Your task to perform on an android device: Turn off the flashlight Image 0: 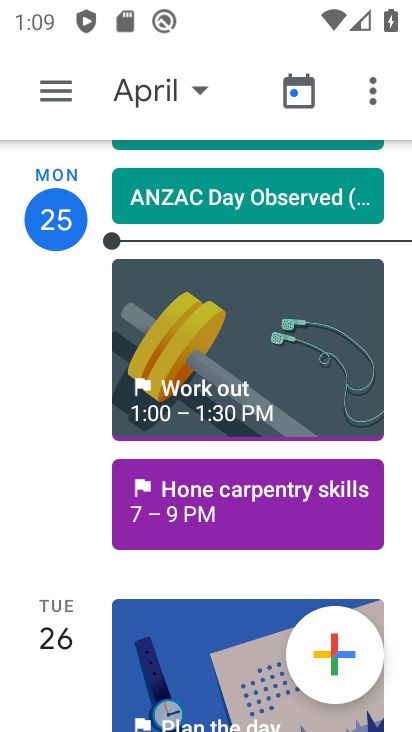
Step 0: press home button
Your task to perform on an android device: Turn off the flashlight Image 1: 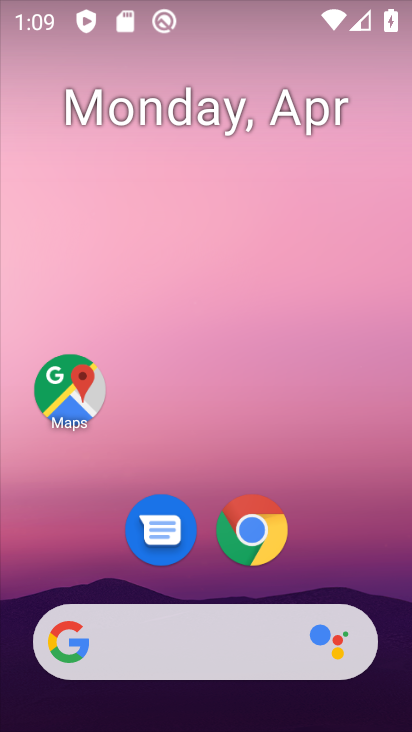
Step 1: drag from (330, 543) to (268, 45)
Your task to perform on an android device: Turn off the flashlight Image 2: 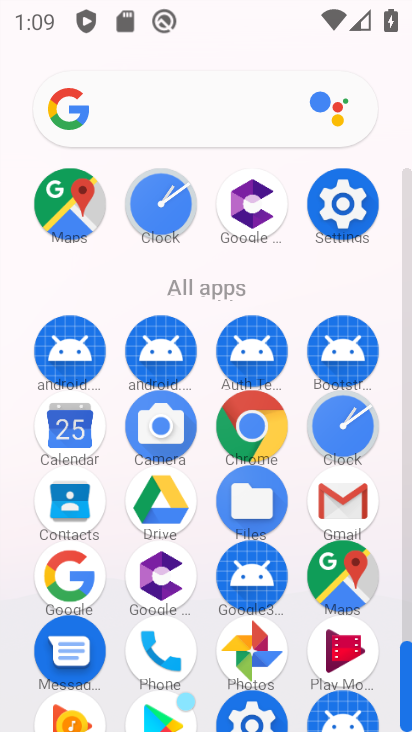
Step 2: click (343, 204)
Your task to perform on an android device: Turn off the flashlight Image 3: 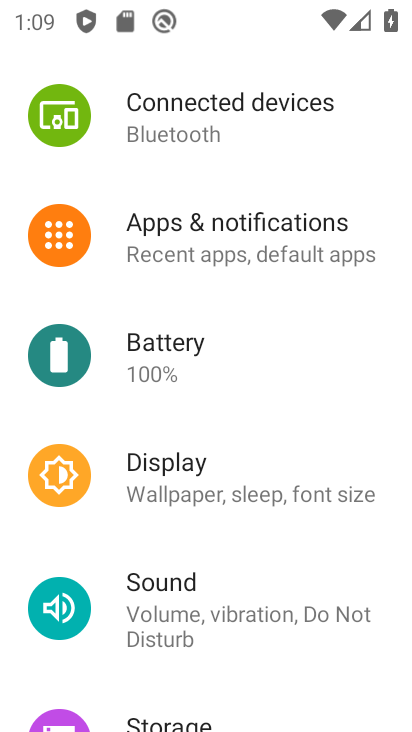
Step 3: click (180, 476)
Your task to perform on an android device: Turn off the flashlight Image 4: 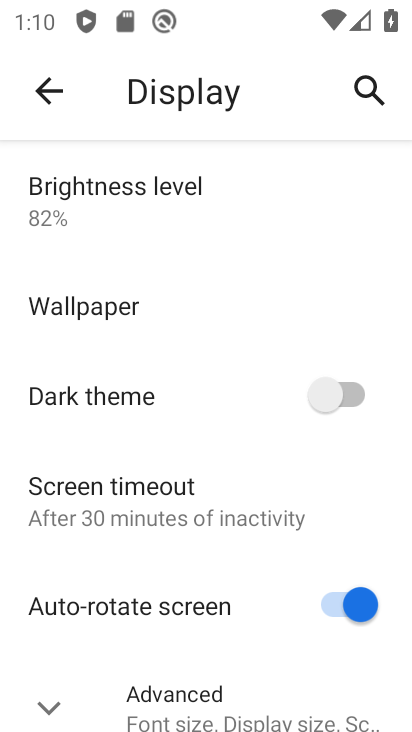
Step 4: task complete